Your task to perform on an android device: Add razer blade to the cart on walmart.com Image 0: 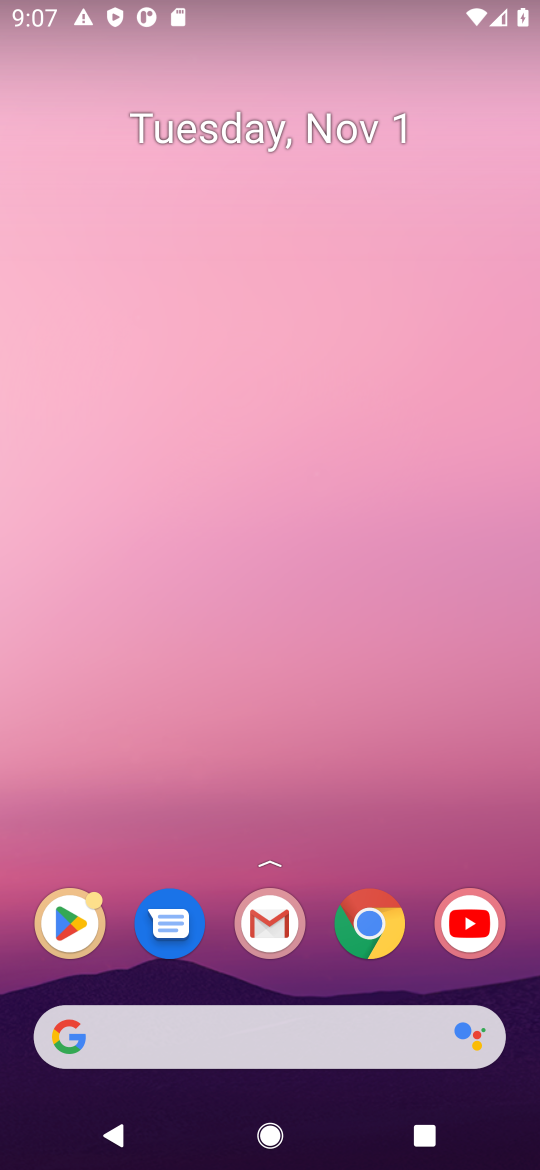
Step 0: drag from (319, 245) to (320, 53)
Your task to perform on an android device: Add razer blade to the cart on walmart.com Image 1: 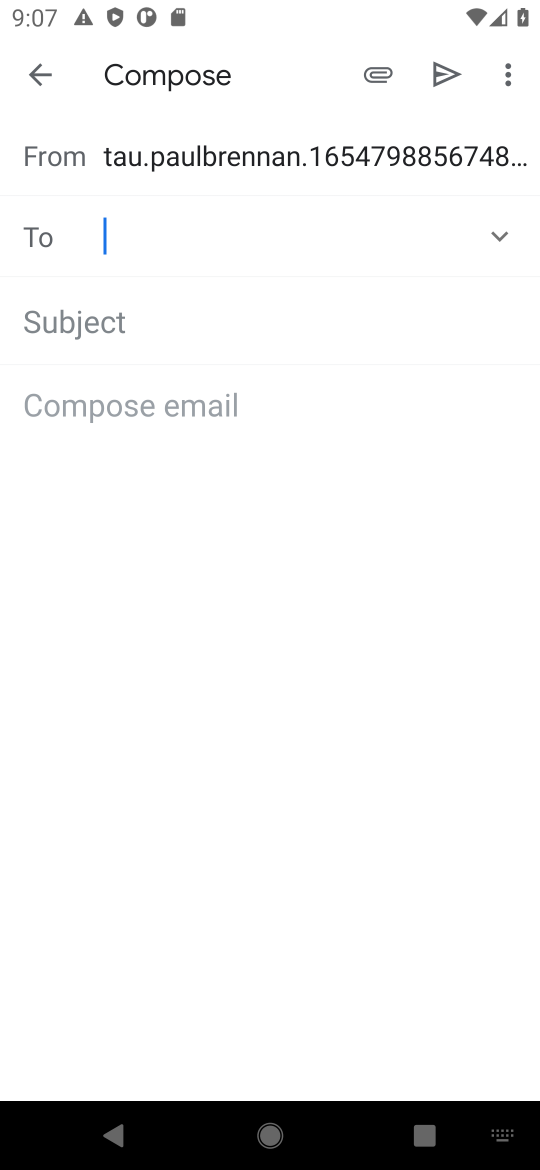
Step 1: press home button
Your task to perform on an android device: Add razer blade to the cart on walmart.com Image 2: 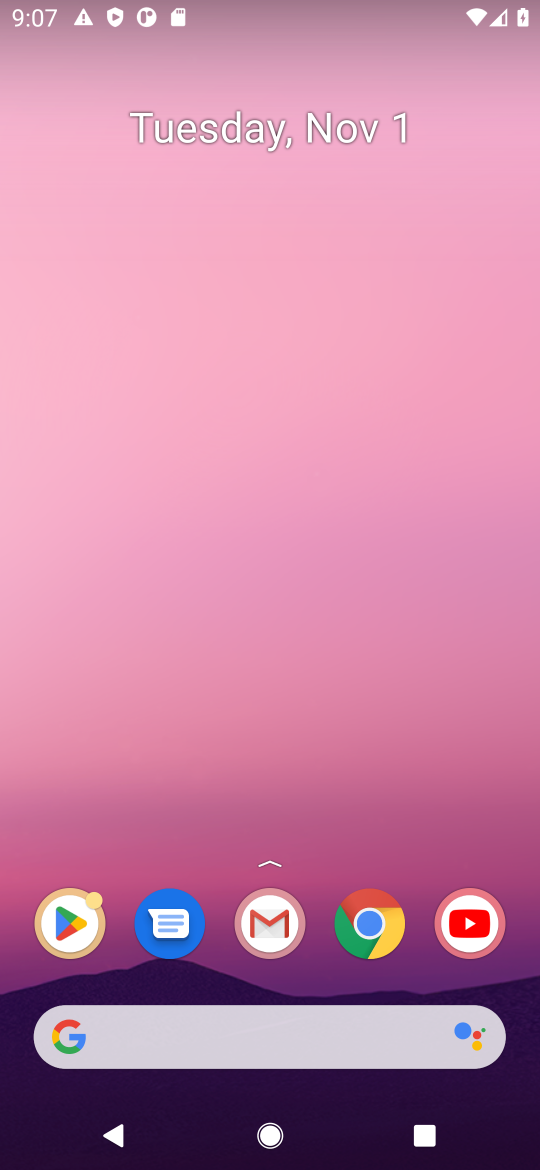
Step 2: drag from (325, 985) to (315, 43)
Your task to perform on an android device: Add razer blade to the cart on walmart.com Image 3: 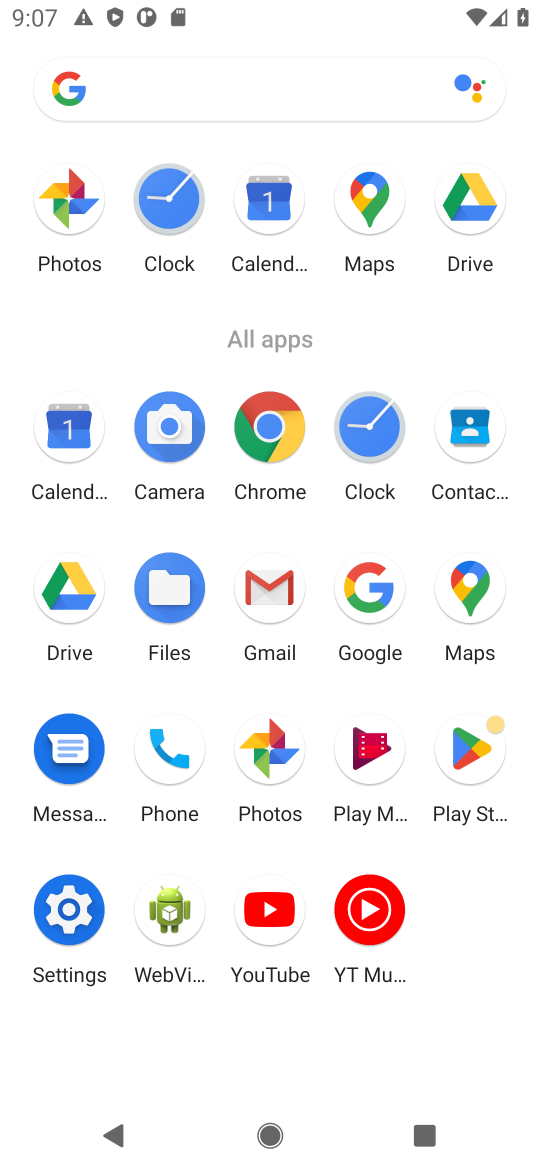
Step 3: click (271, 426)
Your task to perform on an android device: Add razer blade to the cart on walmart.com Image 4: 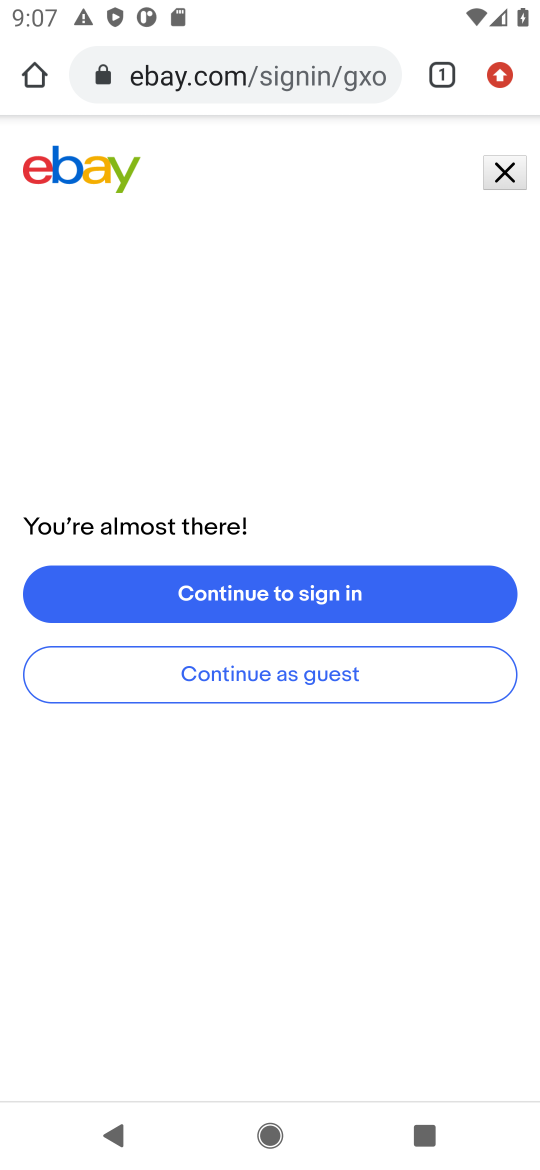
Step 4: click (278, 79)
Your task to perform on an android device: Add razer blade to the cart on walmart.com Image 5: 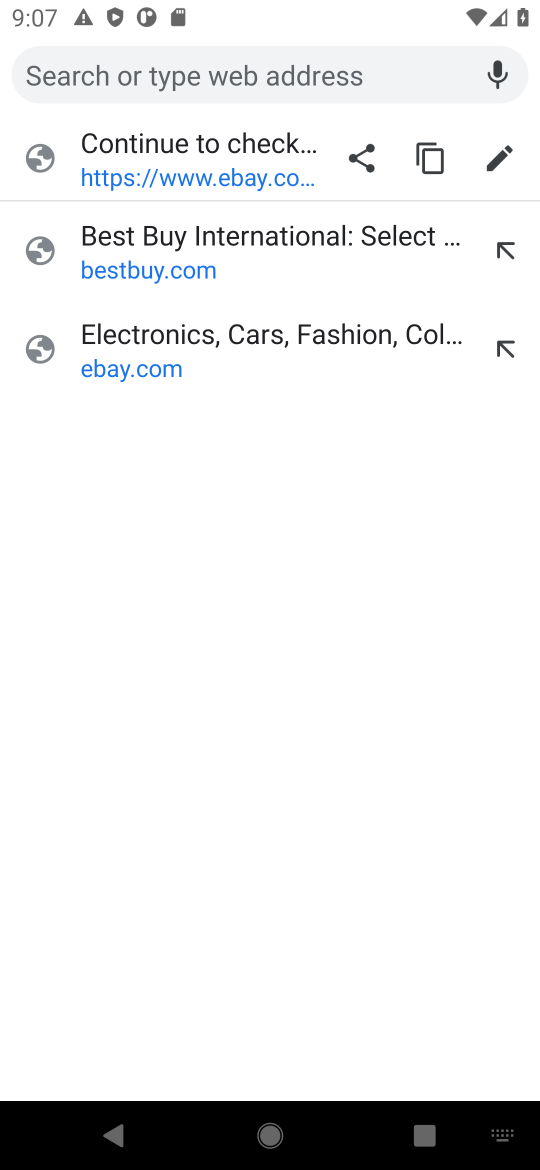
Step 5: type "walmart.com"
Your task to perform on an android device: Add razer blade to the cart on walmart.com Image 6: 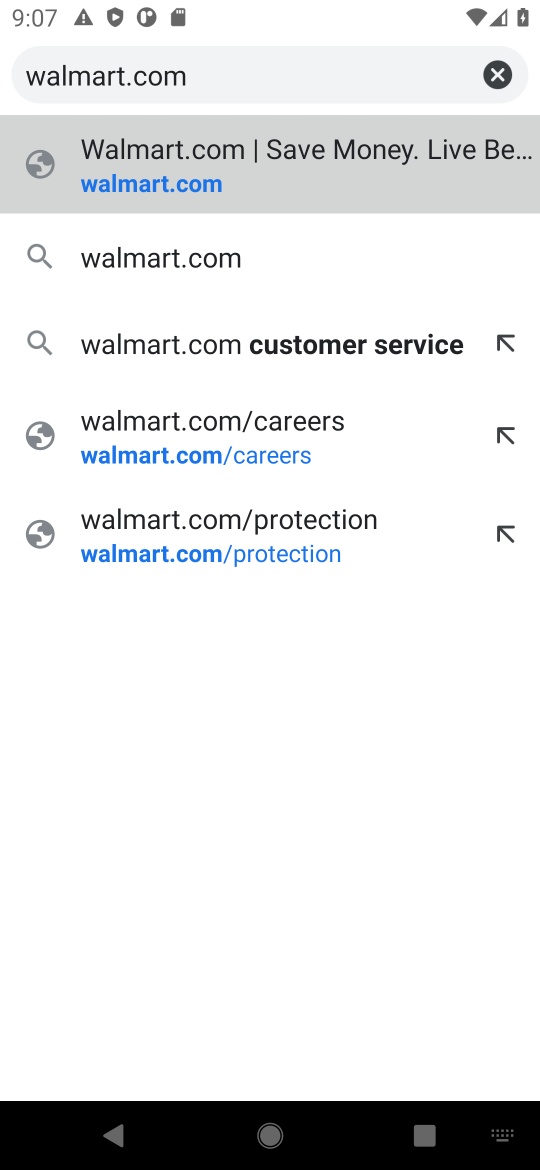
Step 6: press enter
Your task to perform on an android device: Add razer blade to the cart on walmart.com Image 7: 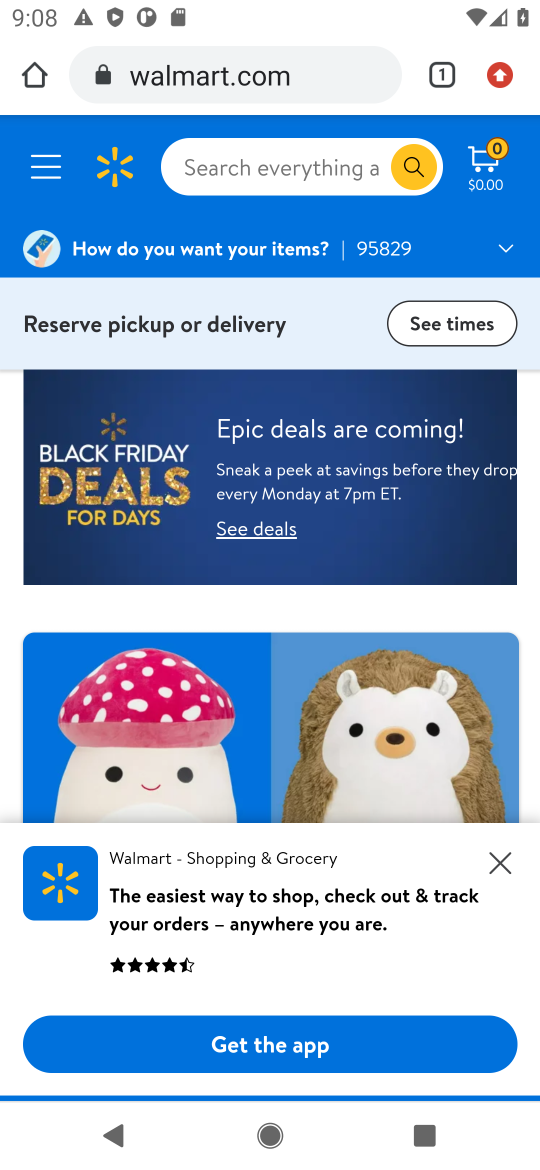
Step 7: click (276, 169)
Your task to perform on an android device: Add razer blade to the cart on walmart.com Image 8: 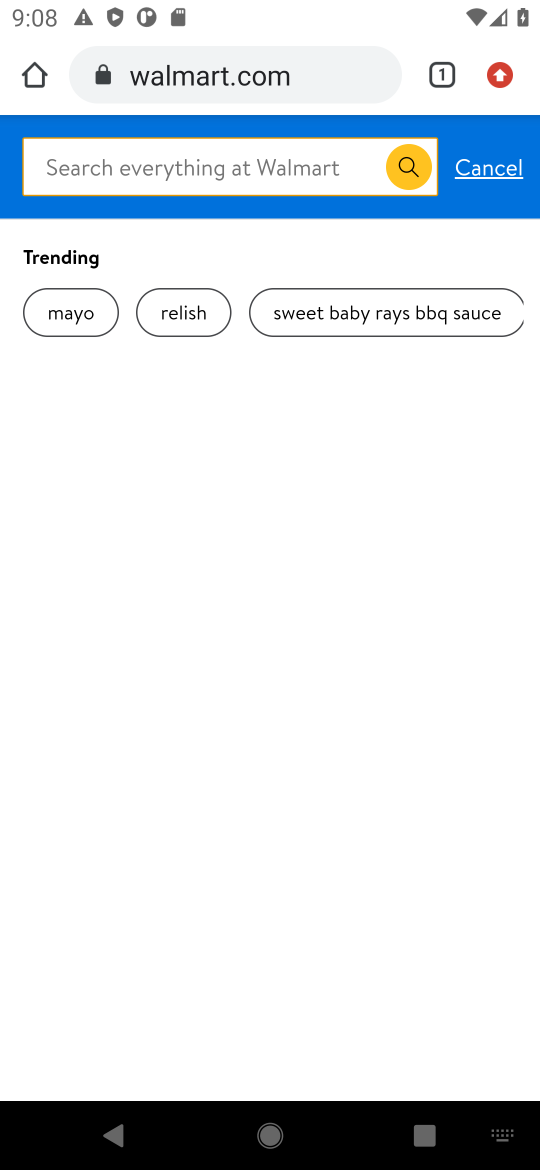
Step 8: type "razer blade"
Your task to perform on an android device: Add razer blade to the cart on walmart.com Image 9: 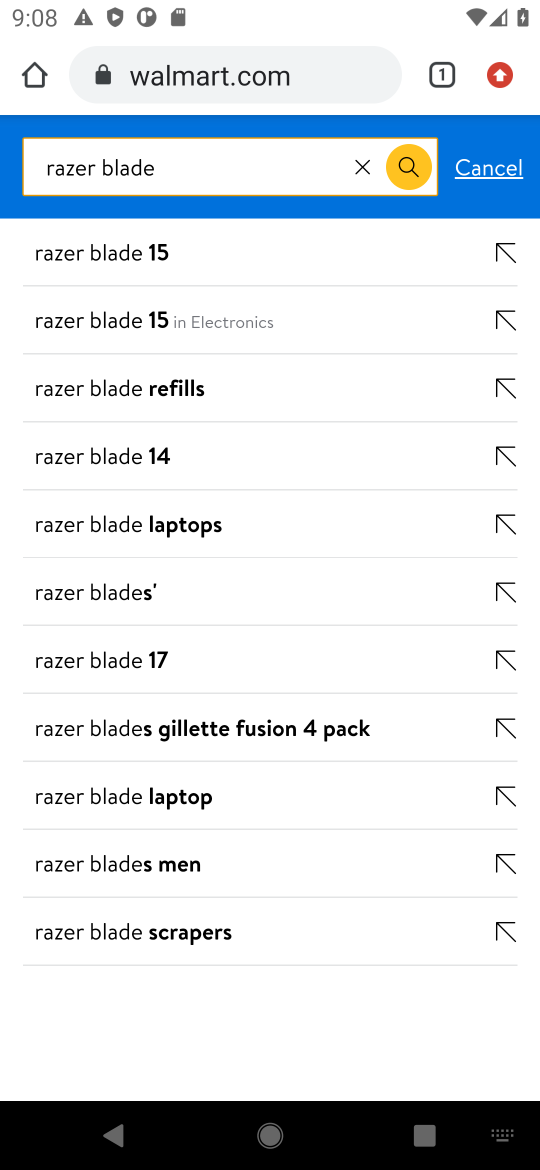
Step 9: press enter
Your task to perform on an android device: Add razer blade to the cart on walmart.com Image 10: 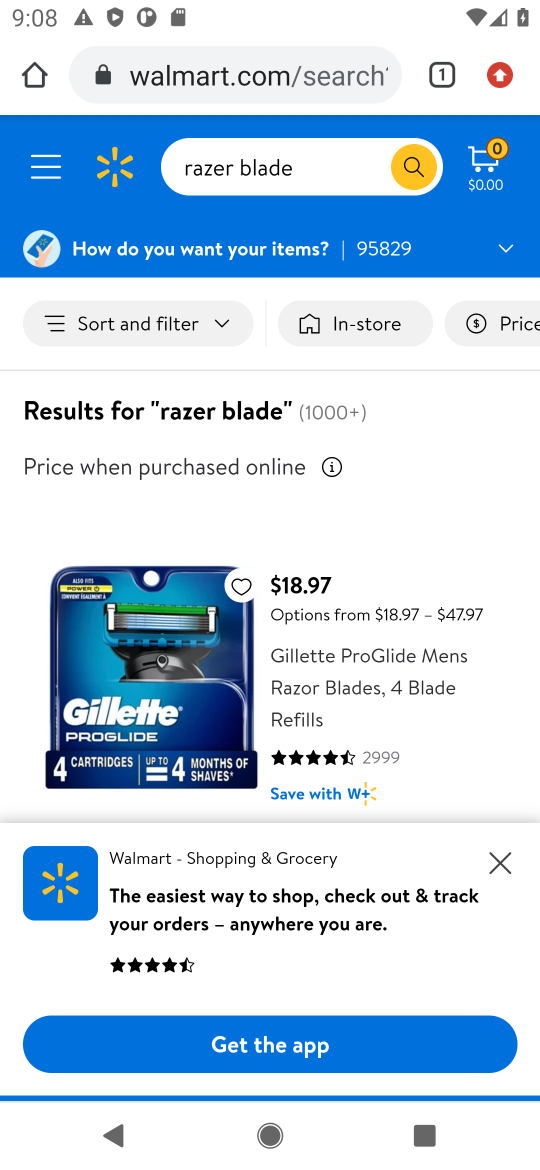
Step 10: drag from (403, 724) to (354, 169)
Your task to perform on an android device: Add razer blade to the cart on walmart.com Image 11: 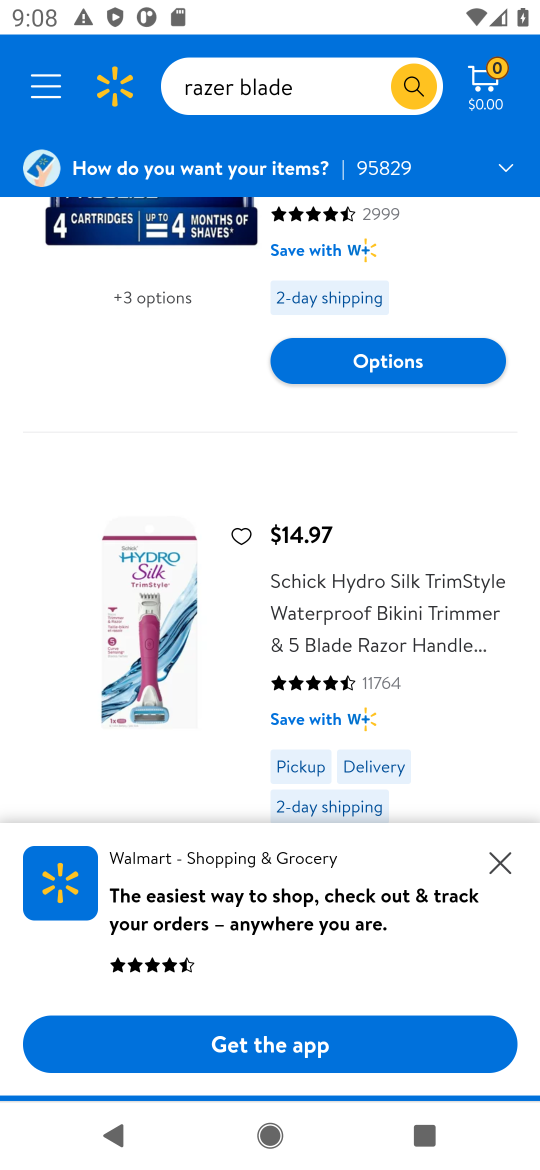
Step 11: drag from (357, 519) to (302, 820)
Your task to perform on an android device: Add razer blade to the cart on walmart.com Image 12: 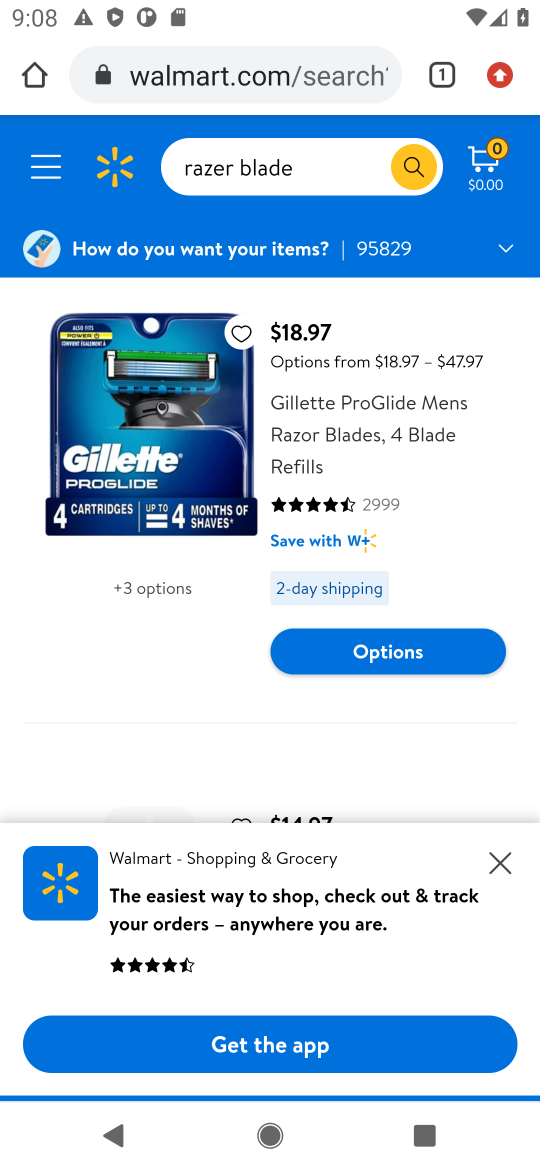
Step 12: drag from (274, 711) to (367, 1140)
Your task to perform on an android device: Add razer blade to the cart on walmart.com Image 13: 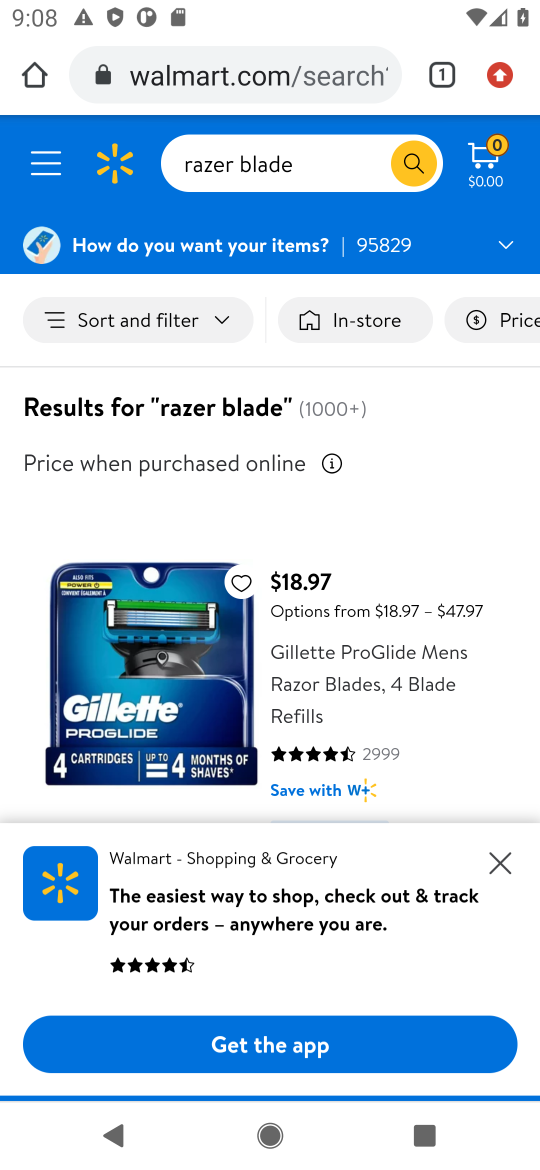
Step 13: drag from (277, 766) to (317, 231)
Your task to perform on an android device: Add razer blade to the cart on walmart.com Image 14: 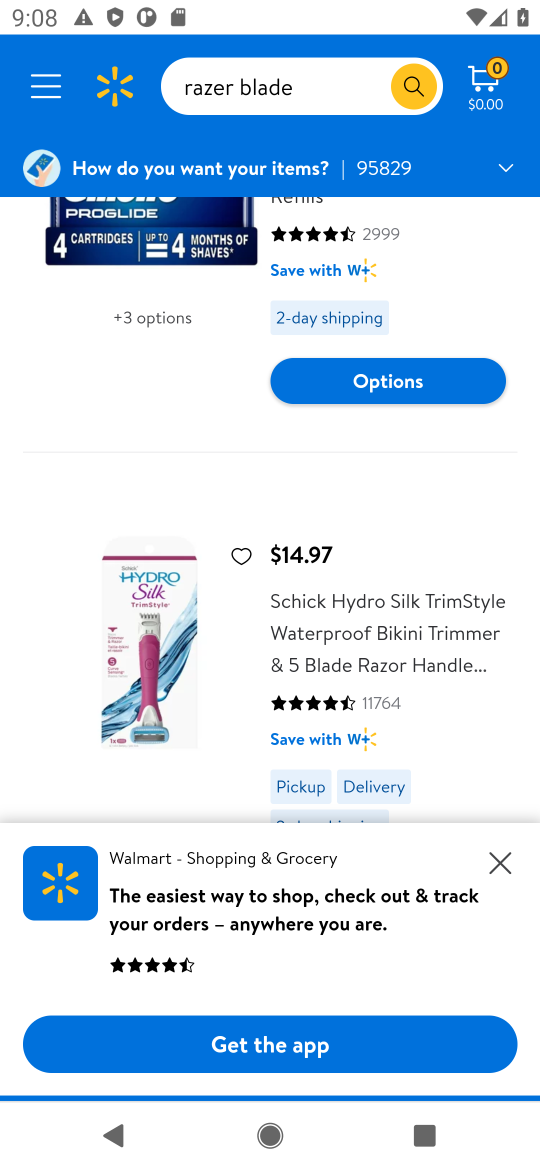
Step 14: drag from (337, 710) to (362, 139)
Your task to perform on an android device: Add razer blade to the cart on walmart.com Image 15: 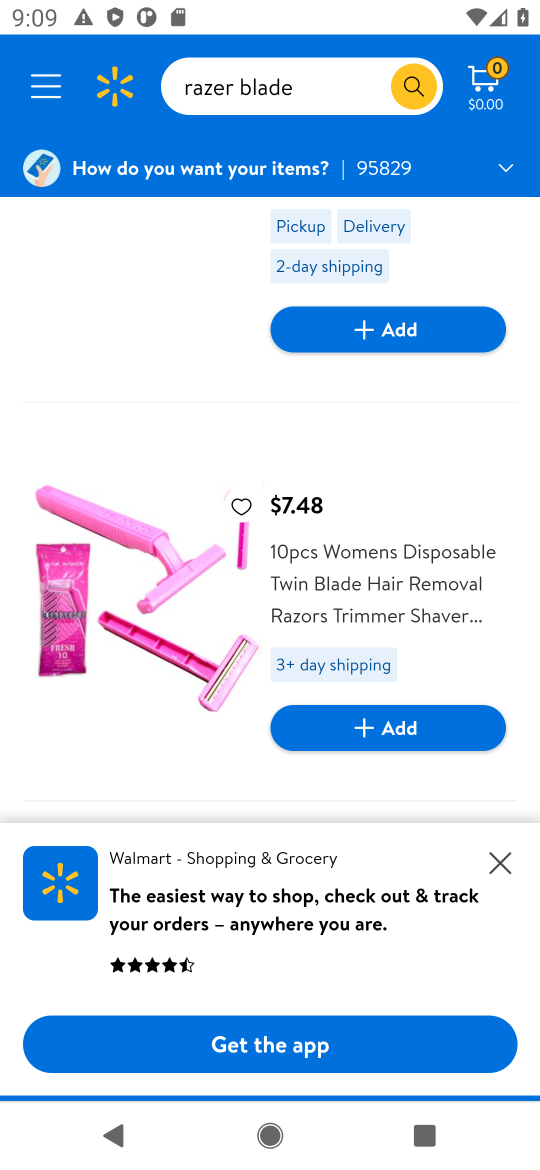
Step 15: drag from (371, 385) to (376, 203)
Your task to perform on an android device: Add razer blade to the cart on walmart.com Image 16: 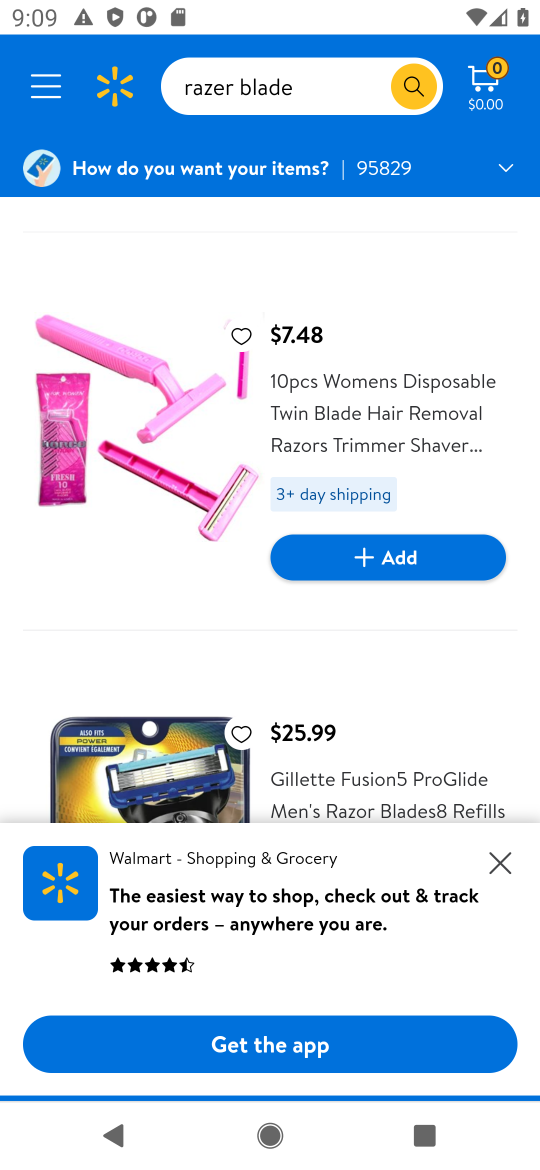
Step 16: drag from (282, 679) to (293, 250)
Your task to perform on an android device: Add razer blade to the cart on walmart.com Image 17: 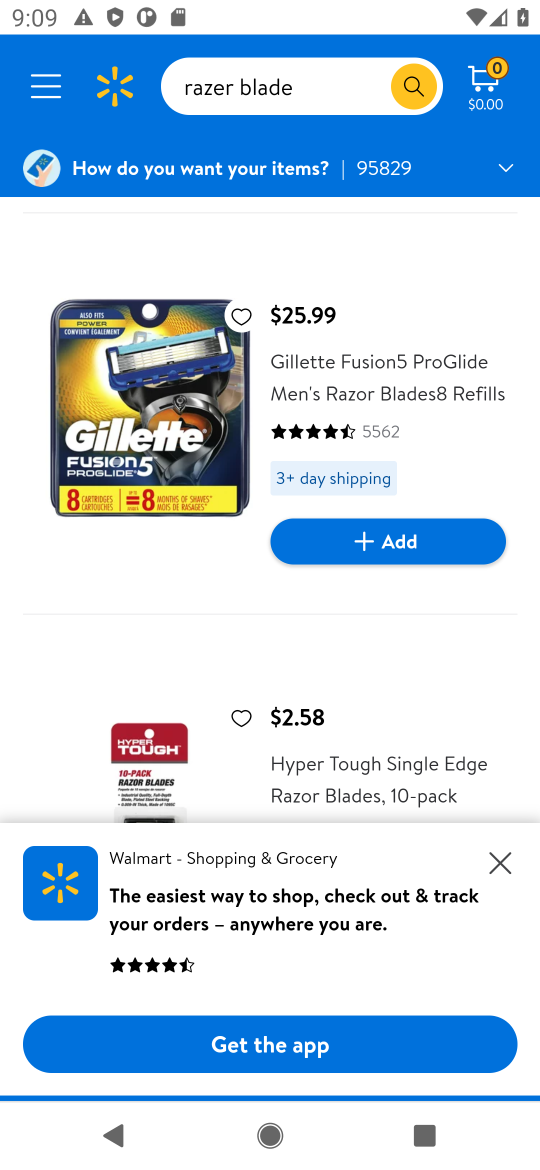
Step 17: drag from (230, 724) to (139, 272)
Your task to perform on an android device: Add razer blade to the cart on walmart.com Image 18: 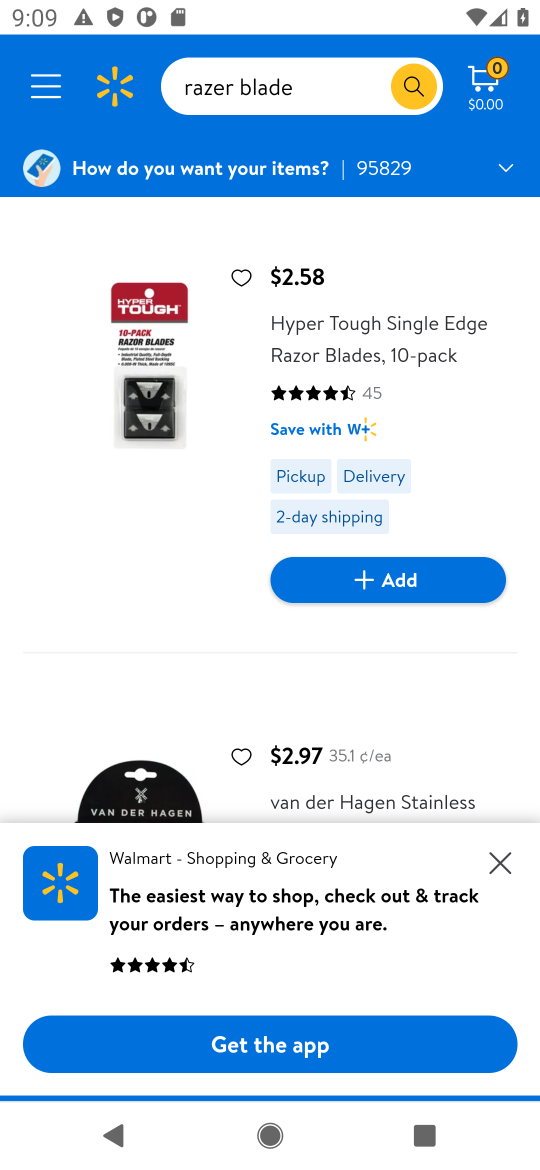
Step 18: drag from (221, 793) to (221, 434)
Your task to perform on an android device: Add razer blade to the cart on walmart.com Image 19: 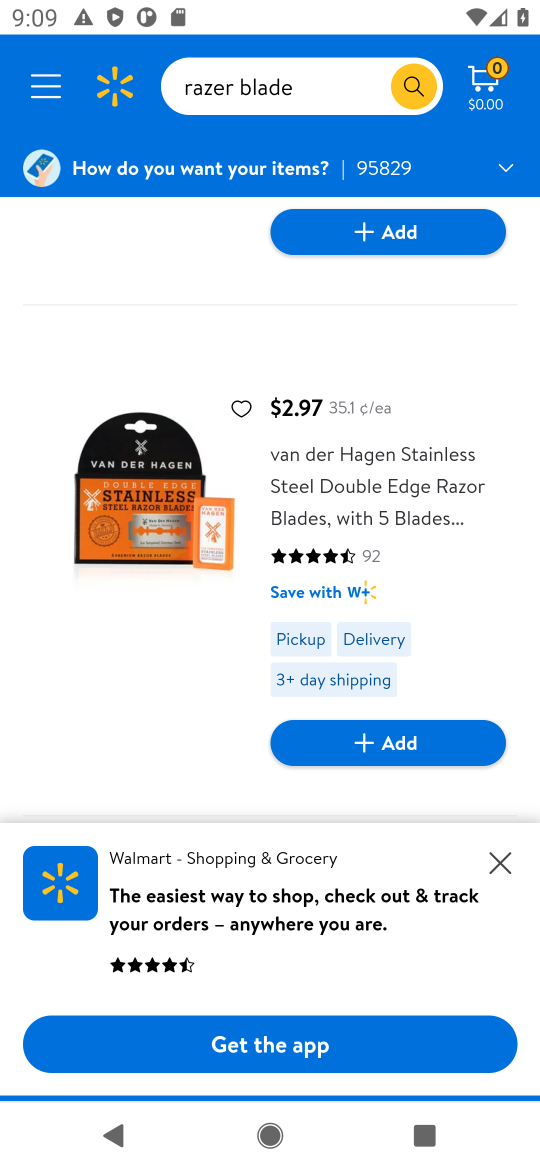
Step 19: drag from (333, 417) to (244, 916)
Your task to perform on an android device: Add razer blade to the cart on walmart.com Image 20: 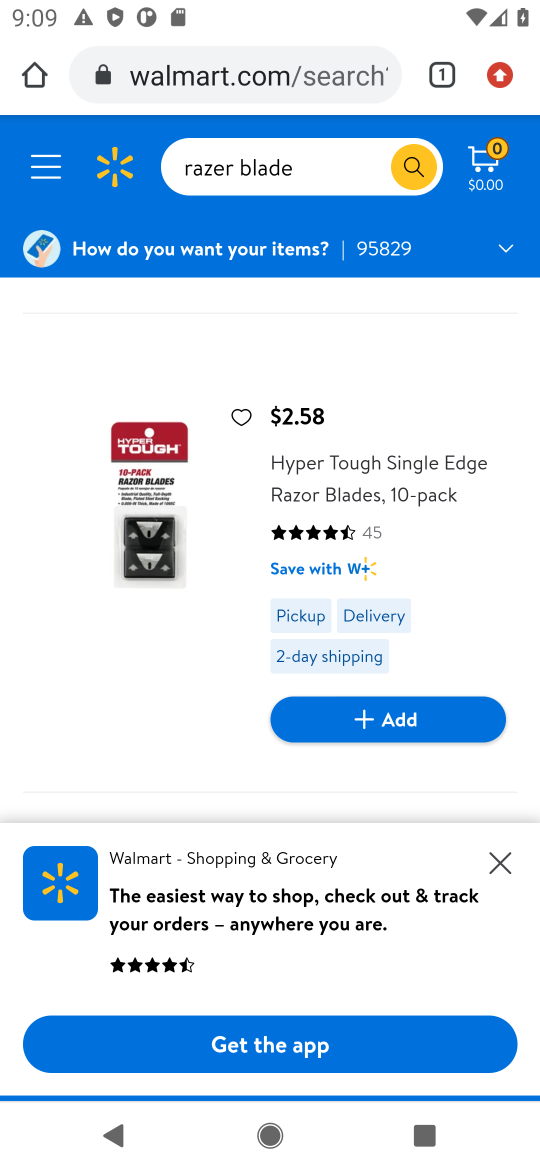
Step 20: drag from (247, 499) to (289, 1008)
Your task to perform on an android device: Add razer blade to the cart on walmart.com Image 21: 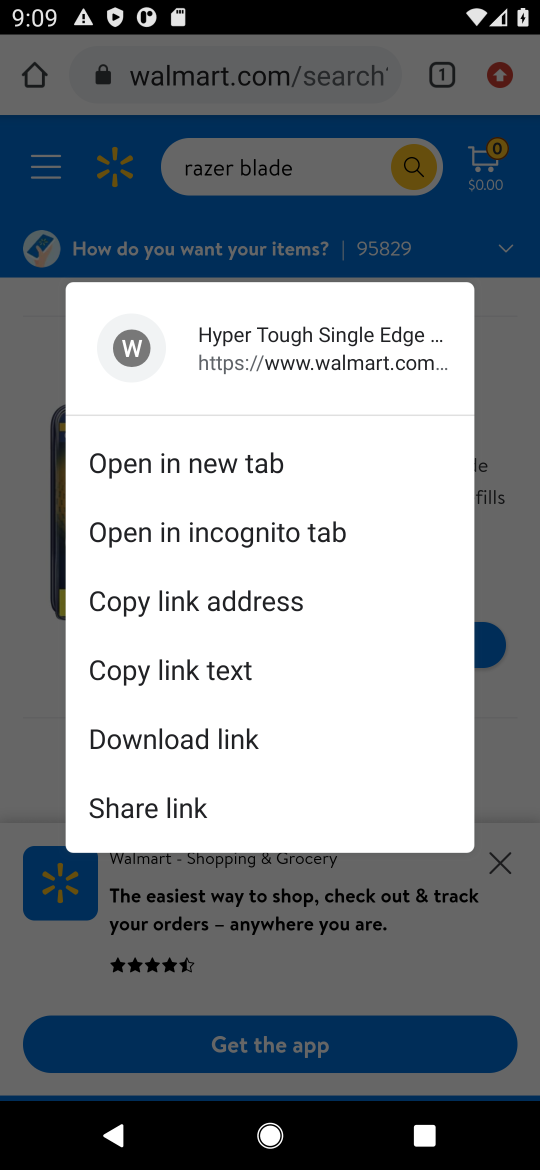
Step 21: click (406, 209)
Your task to perform on an android device: Add razer blade to the cart on walmart.com Image 22: 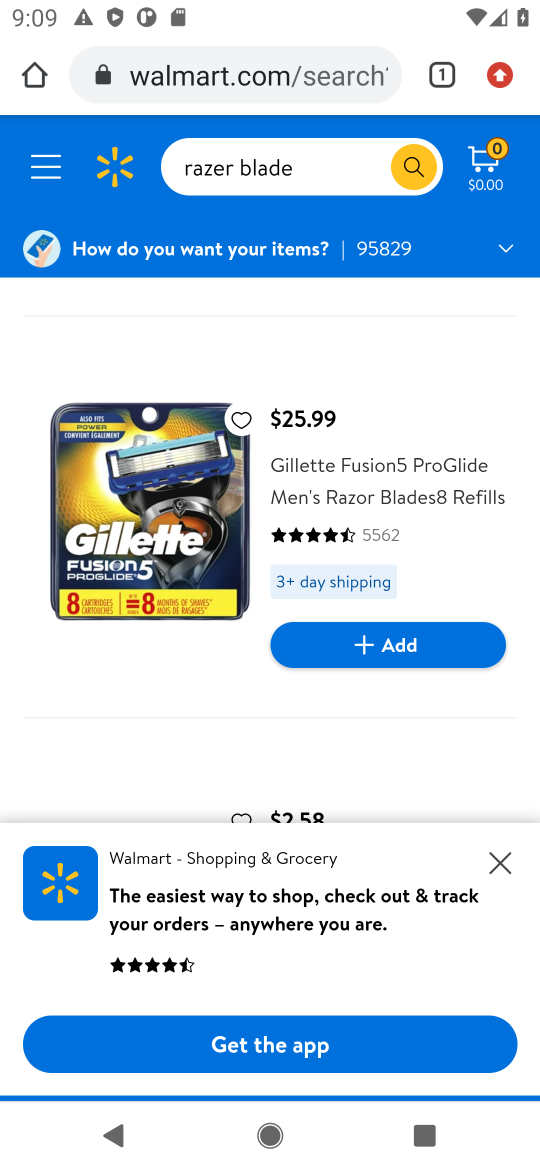
Step 22: drag from (338, 490) to (286, 940)
Your task to perform on an android device: Add razer blade to the cart on walmart.com Image 23: 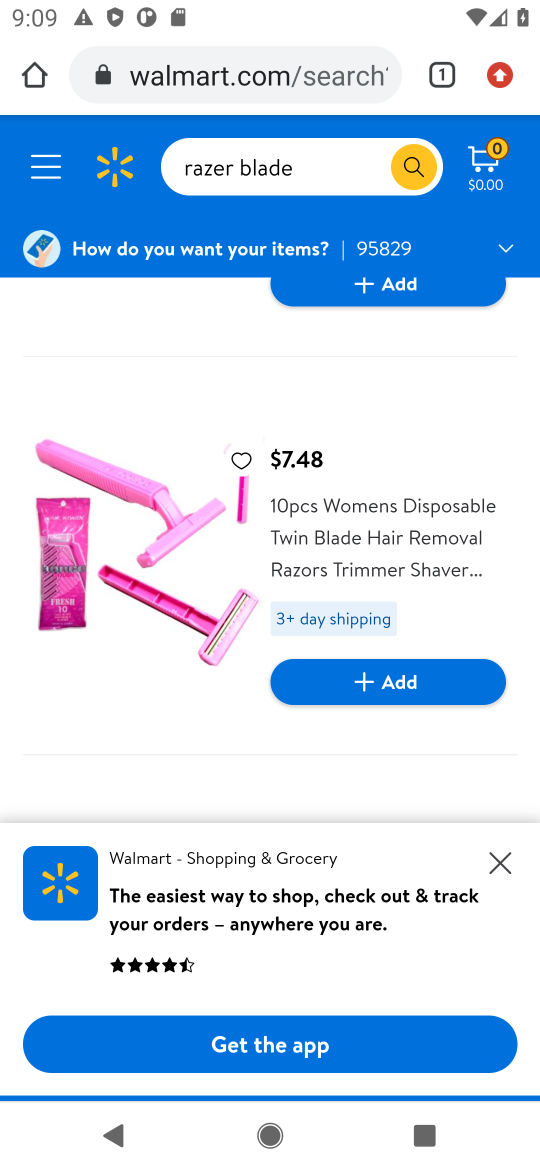
Step 23: drag from (300, 360) to (268, 904)
Your task to perform on an android device: Add razer blade to the cart on walmart.com Image 24: 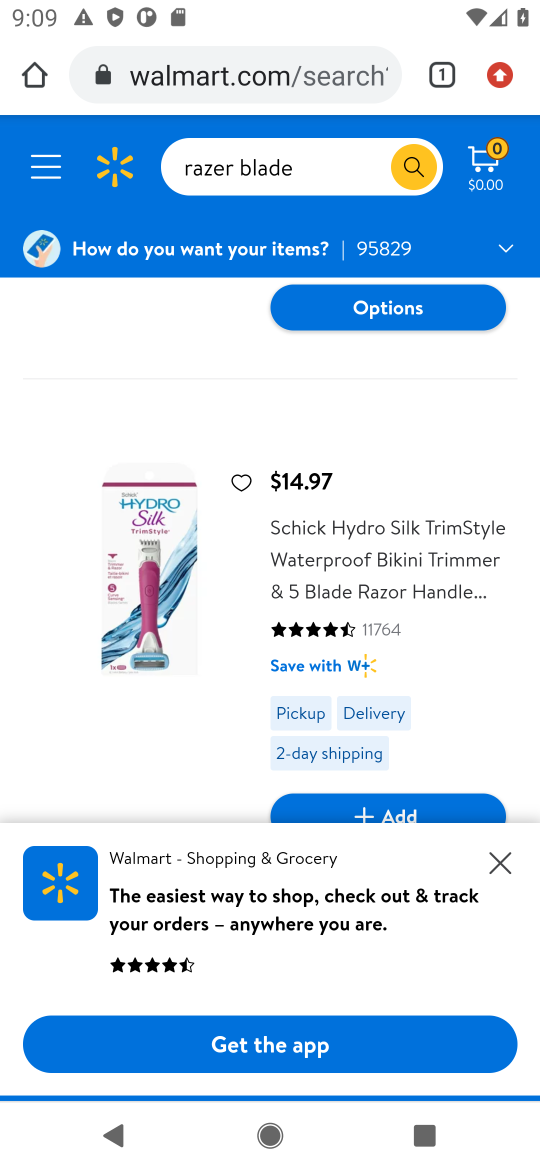
Step 24: drag from (361, 357) to (384, 973)
Your task to perform on an android device: Add razer blade to the cart on walmart.com Image 25: 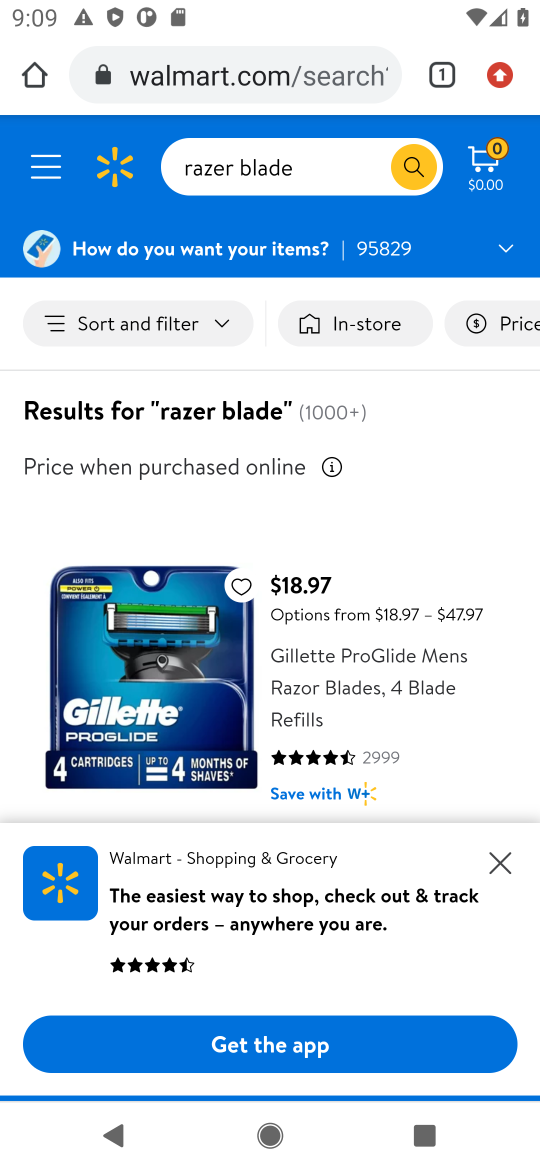
Step 25: click (127, 660)
Your task to perform on an android device: Add razer blade to the cart on walmart.com Image 26: 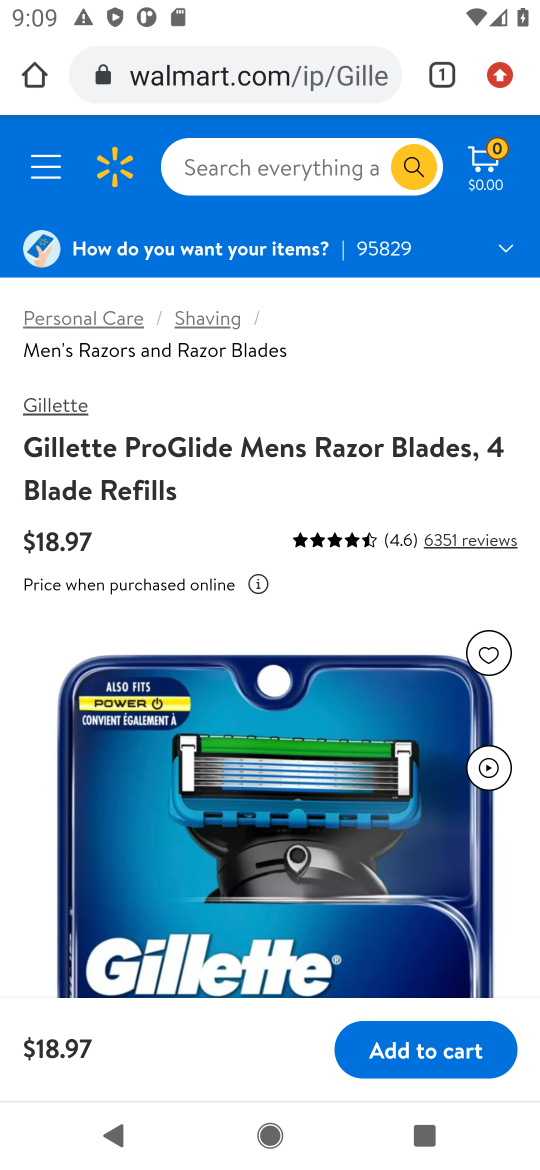
Step 26: click (428, 1051)
Your task to perform on an android device: Add razer blade to the cart on walmart.com Image 27: 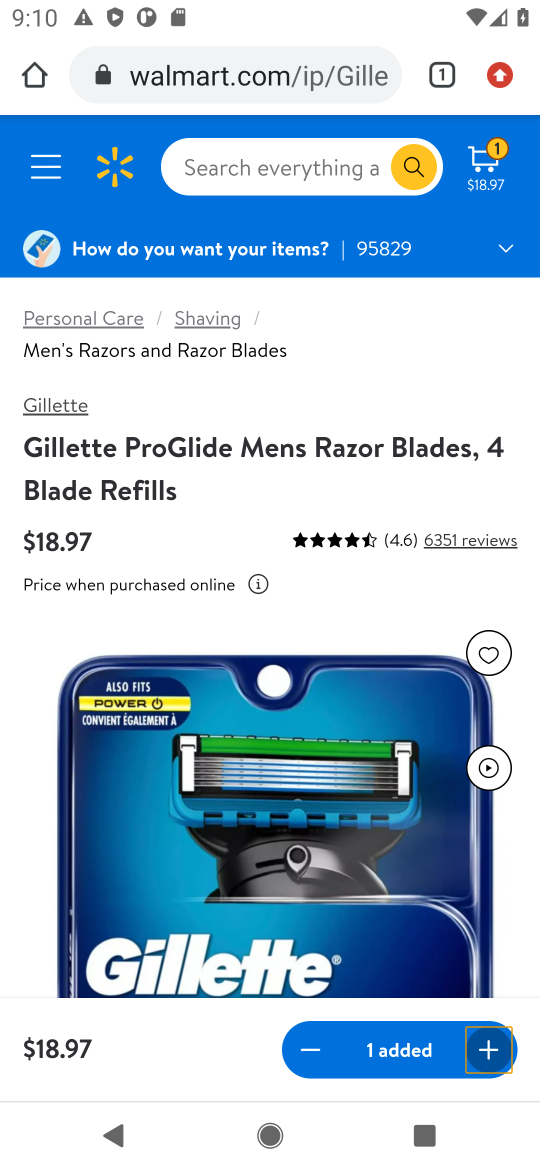
Step 27: task complete